Your task to perform on an android device: toggle notifications settings in the gmail app Image 0: 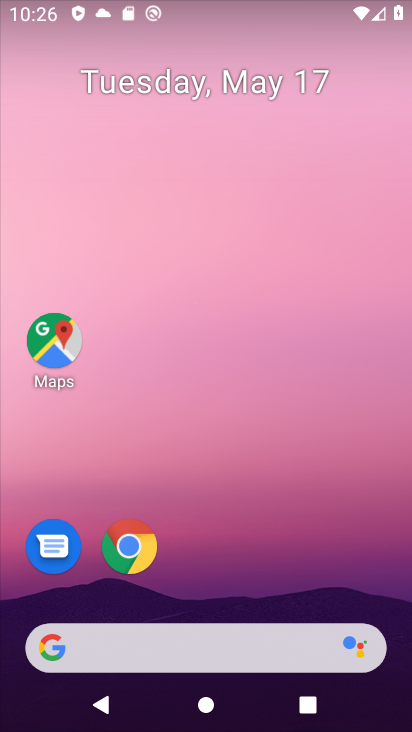
Step 0: drag from (290, 578) to (336, 141)
Your task to perform on an android device: toggle notifications settings in the gmail app Image 1: 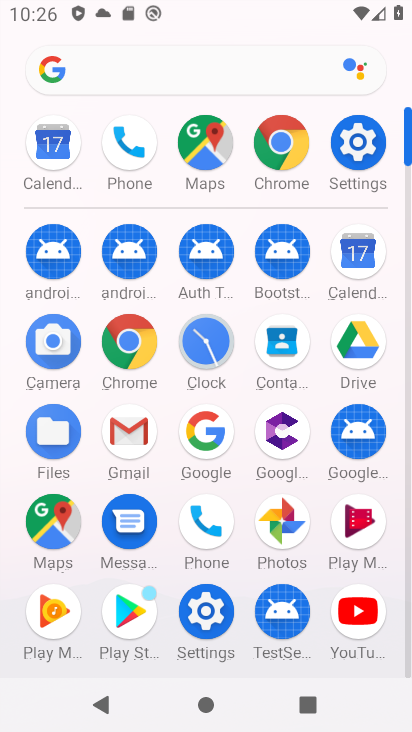
Step 1: click (141, 428)
Your task to perform on an android device: toggle notifications settings in the gmail app Image 2: 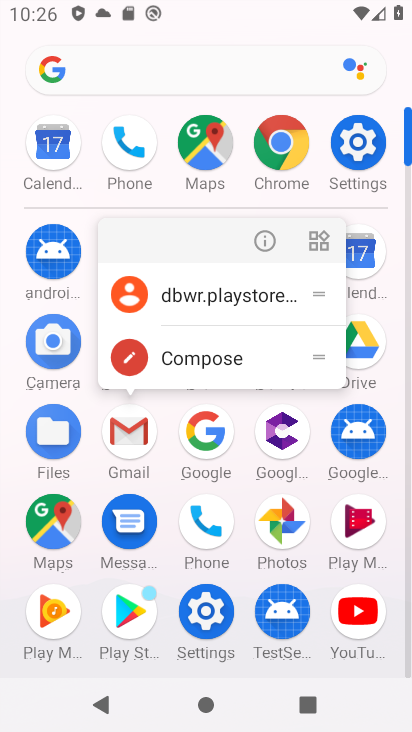
Step 2: click (121, 431)
Your task to perform on an android device: toggle notifications settings in the gmail app Image 3: 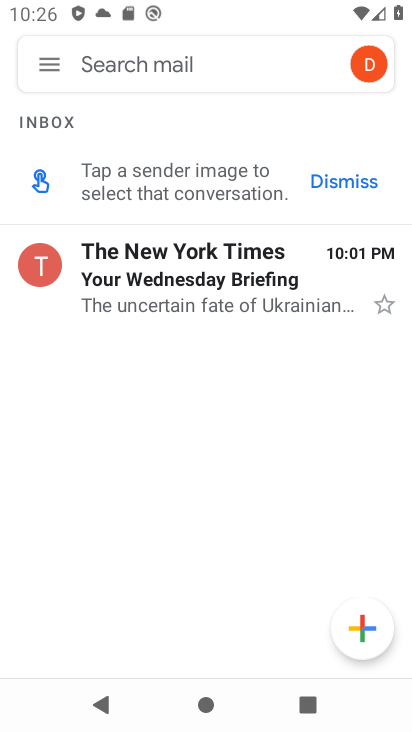
Step 3: click (36, 55)
Your task to perform on an android device: toggle notifications settings in the gmail app Image 4: 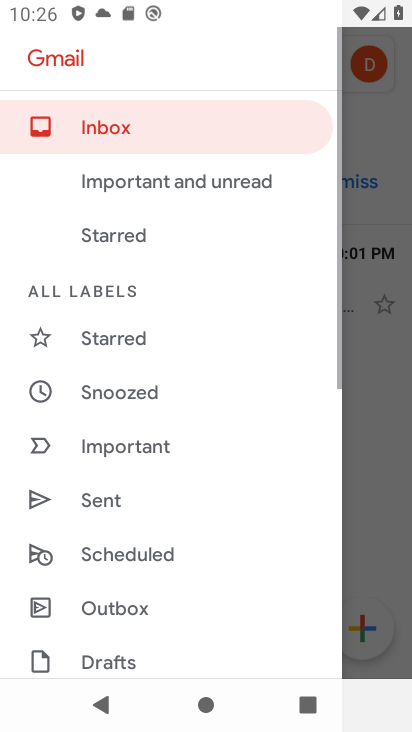
Step 4: drag from (157, 604) to (251, 172)
Your task to perform on an android device: toggle notifications settings in the gmail app Image 5: 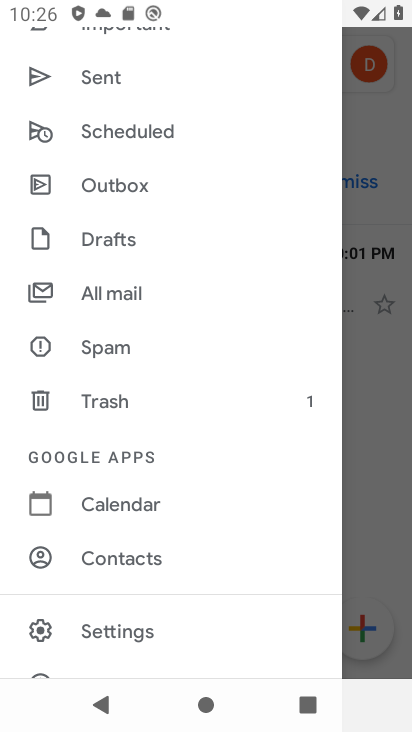
Step 5: click (119, 630)
Your task to perform on an android device: toggle notifications settings in the gmail app Image 6: 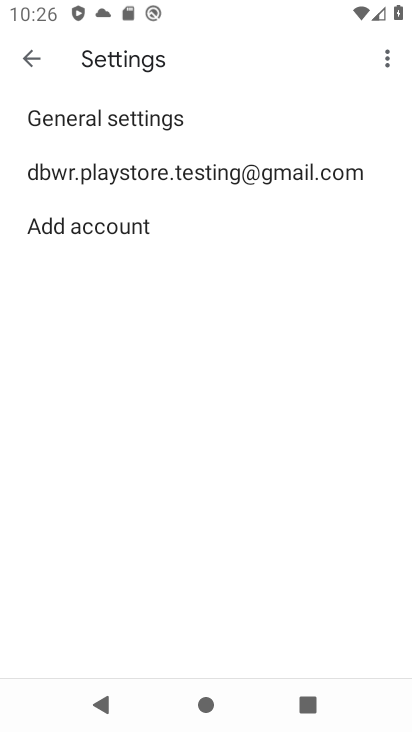
Step 6: click (177, 173)
Your task to perform on an android device: toggle notifications settings in the gmail app Image 7: 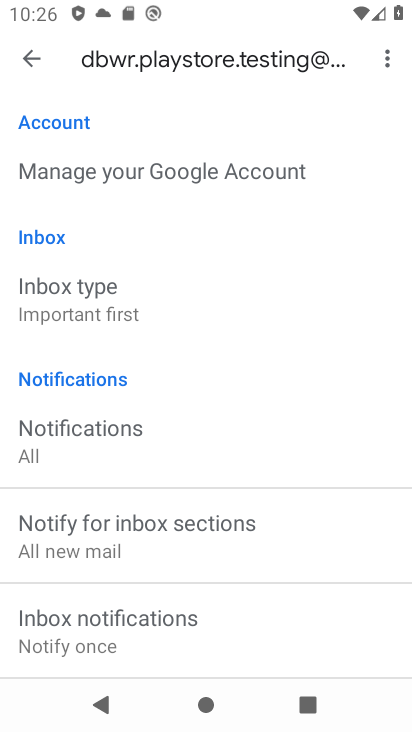
Step 7: drag from (164, 599) to (230, 225)
Your task to perform on an android device: toggle notifications settings in the gmail app Image 8: 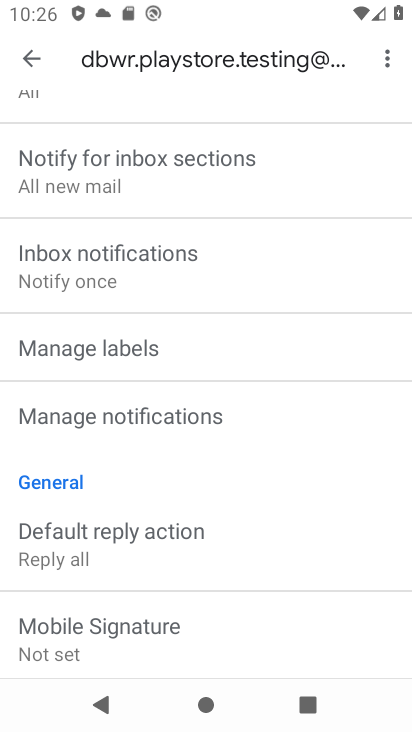
Step 8: drag from (147, 598) to (162, 707)
Your task to perform on an android device: toggle notifications settings in the gmail app Image 9: 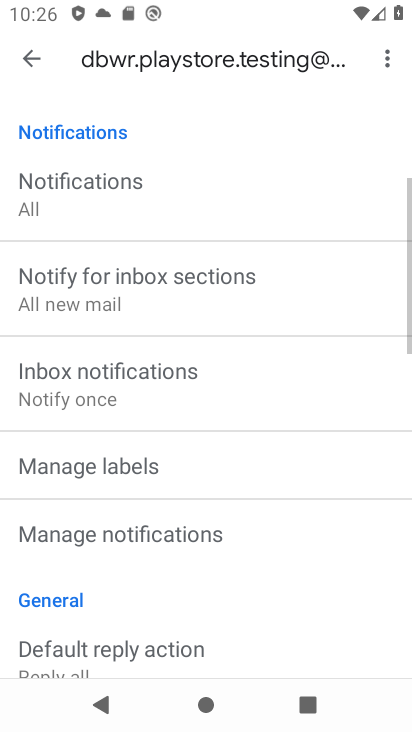
Step 9: drag from (152, 249) to (168, 639)
Your task to perform on an android device: toggle notifications settings in the gmail app Image 10: 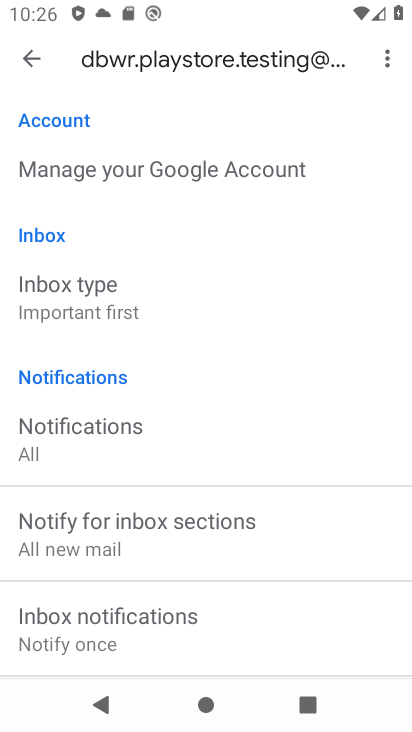
Step 10: click (83, 456)
Your task to perform on an android device: toggle notifications settings in the gmail app Image 11: 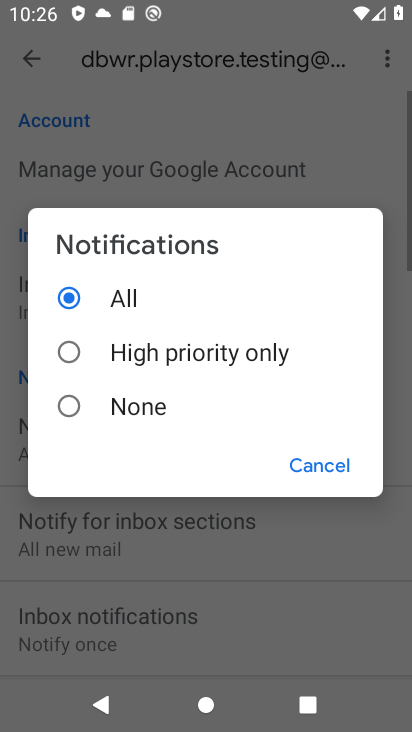
Step 11: click (125, 414)
Your task to perform on an android device: toggle notifications settings in the gmail app Image 12: 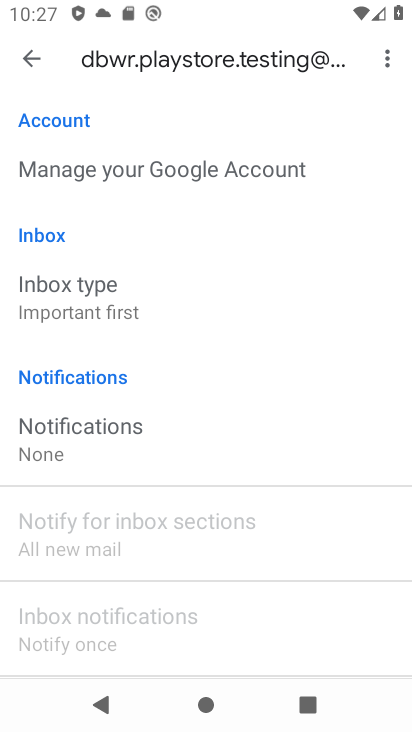
Step 12: task complete